Your task to perform on an android device: open app "DoorDash - Dasher" (install if not already installed) and go to login screen Image 0: 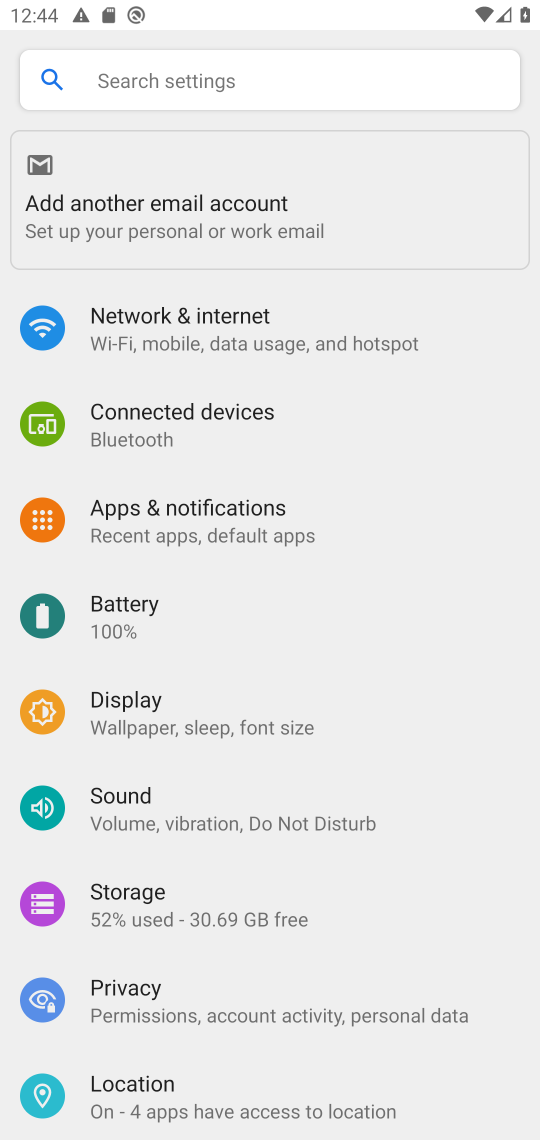
Step 0: press home button
Your task to perform on an android device: open app "DoorDash - Dasher" (install if not already installed) and go to login screen Image 1: 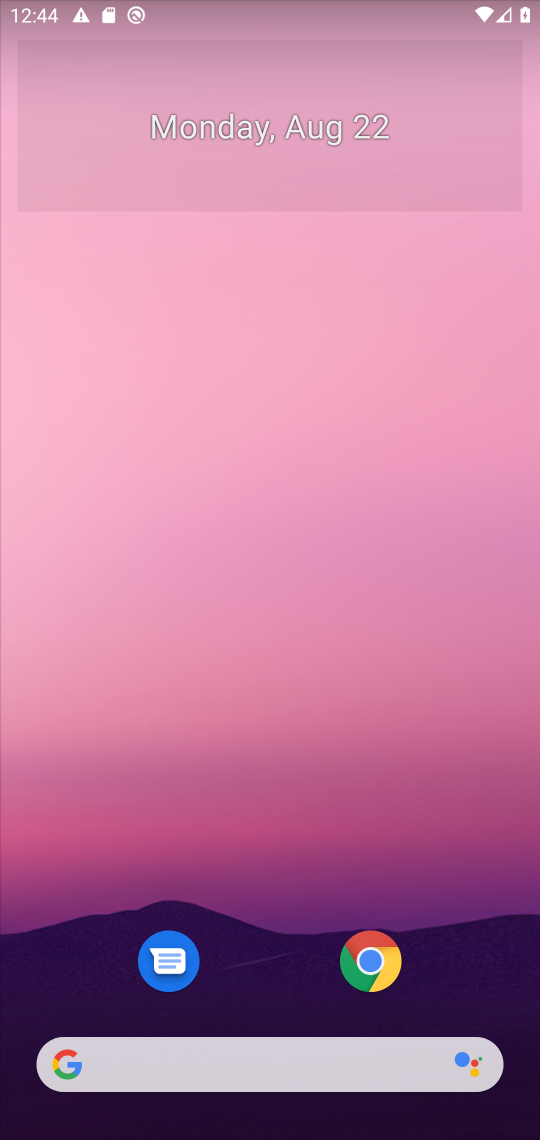
Step 1: drag from (477, 917) to (457, 104)
Your task to perform on an android device: open app "DoorDash - Dasher" (install if not already installed) and go to login screen Image 2: 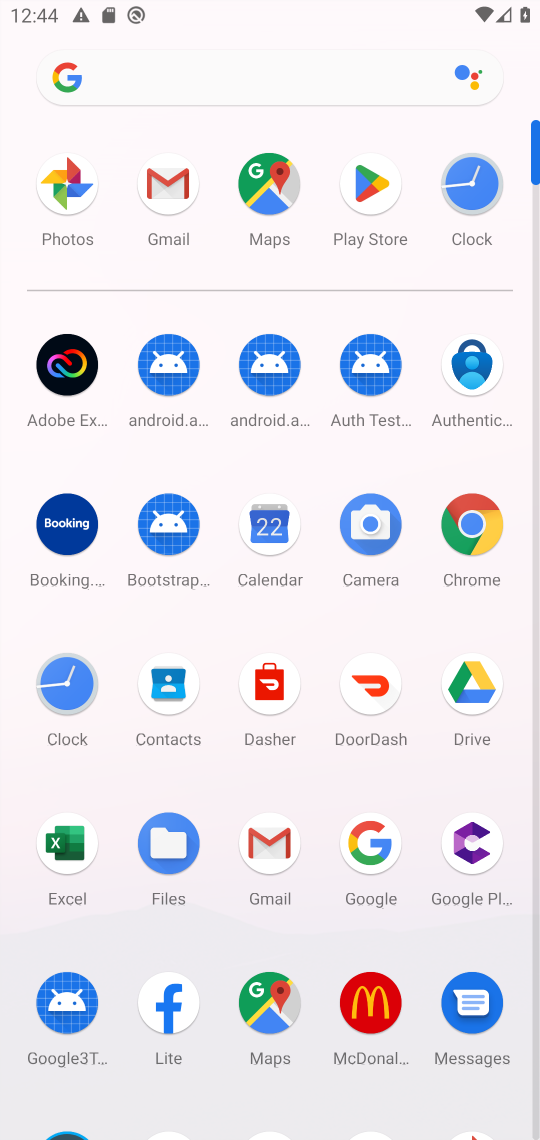
Step 2: click (370, 186)
Your task to perform on an android device: open app "DoorDash - Dasher" (install if not already installed) and go to login screen Image 3: 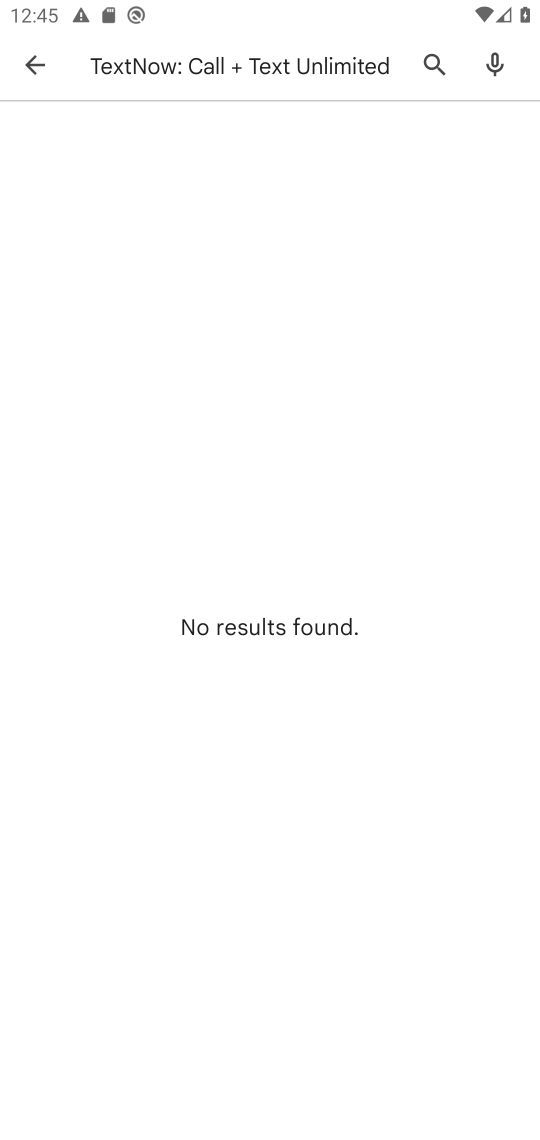
Step 3: press back button
Your task to perform on an android device: open app "DoorDash - Dasher" (install if not already installed) and go to login screen Image 4: 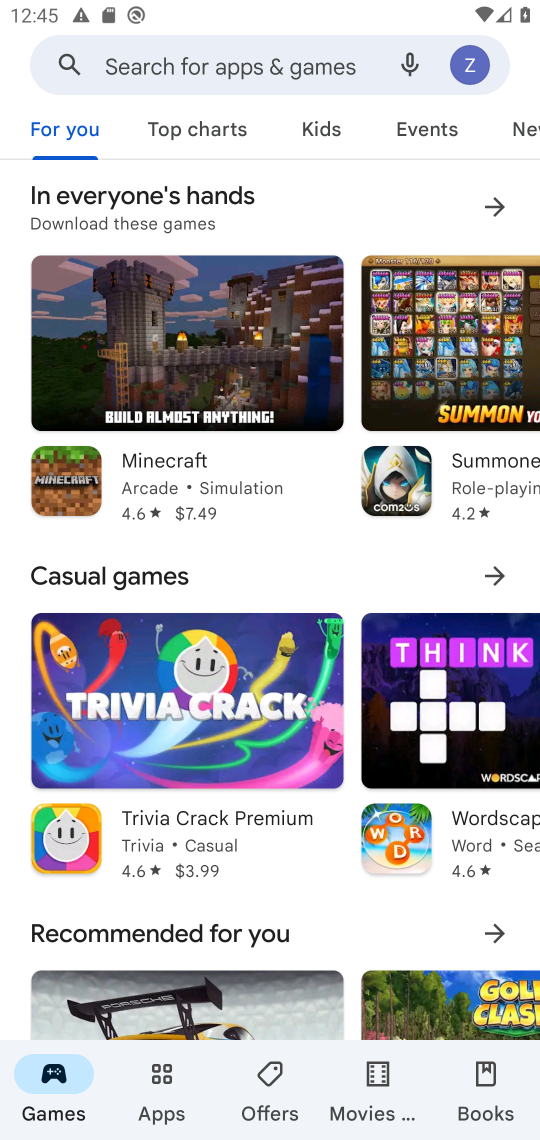
Step 4: click (254, 70)
Your task to perform on an android device: open app "DoorDash - Dasher" (install if not already installed) and go to login screen Image 5: 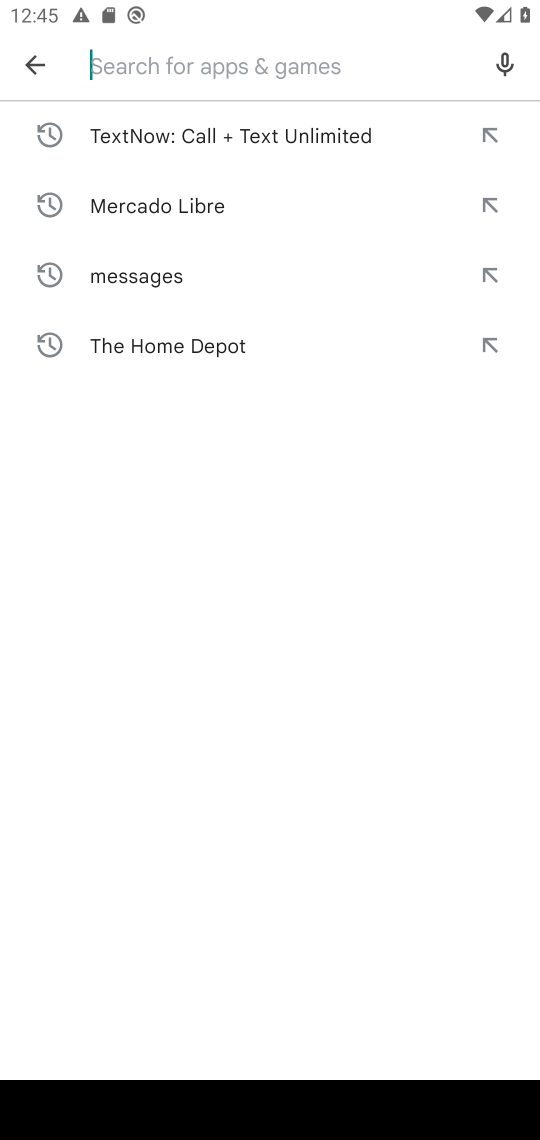
Step 5: type "DoorDash - Dasher"
Your task to perform on an android device: open app "DoorDash - Dasher" (install if not already installed) and go to login screen Image 6: 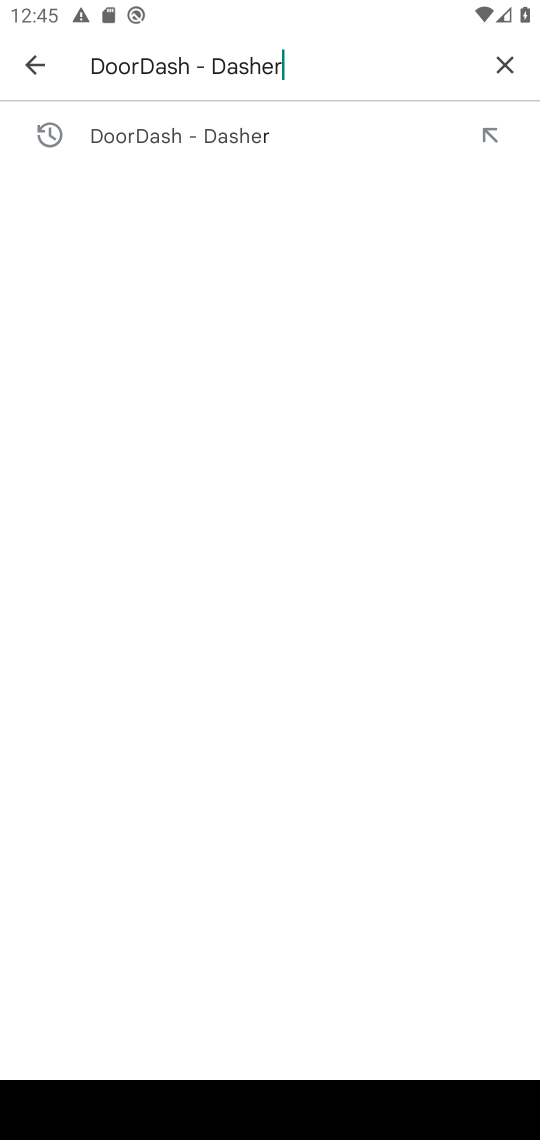
Step 6: press enter
Your task to perform on an android device: open app "DoorDash - Dasher" (install if not already installed) and go to login screen Image 7: 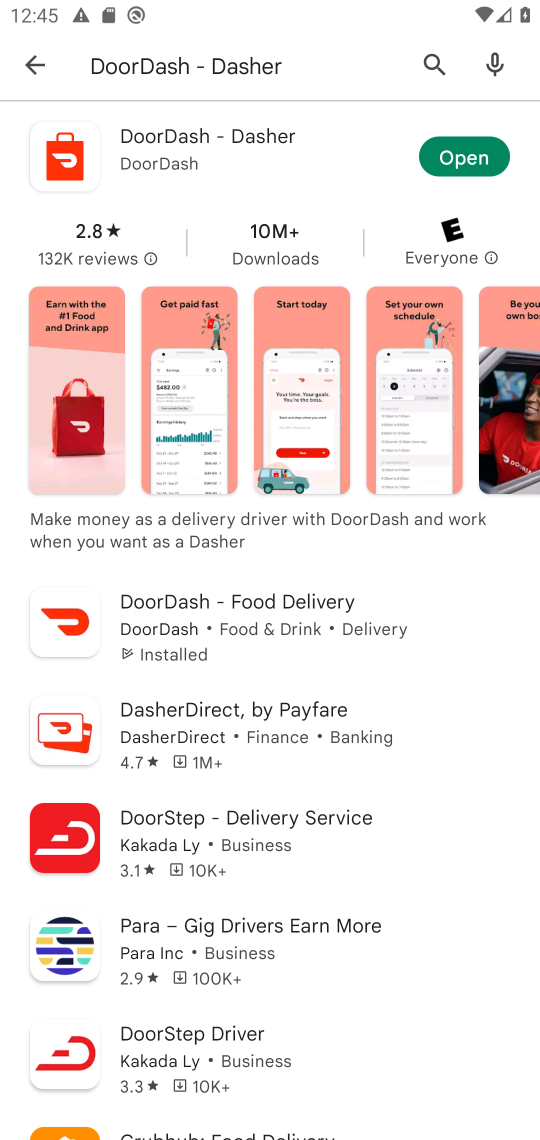
Step 7: click (476, 153)
Your task to perform on an android device: open app "DoorDash - Dasher" (install if not already installed) and go to login screen Image 8: 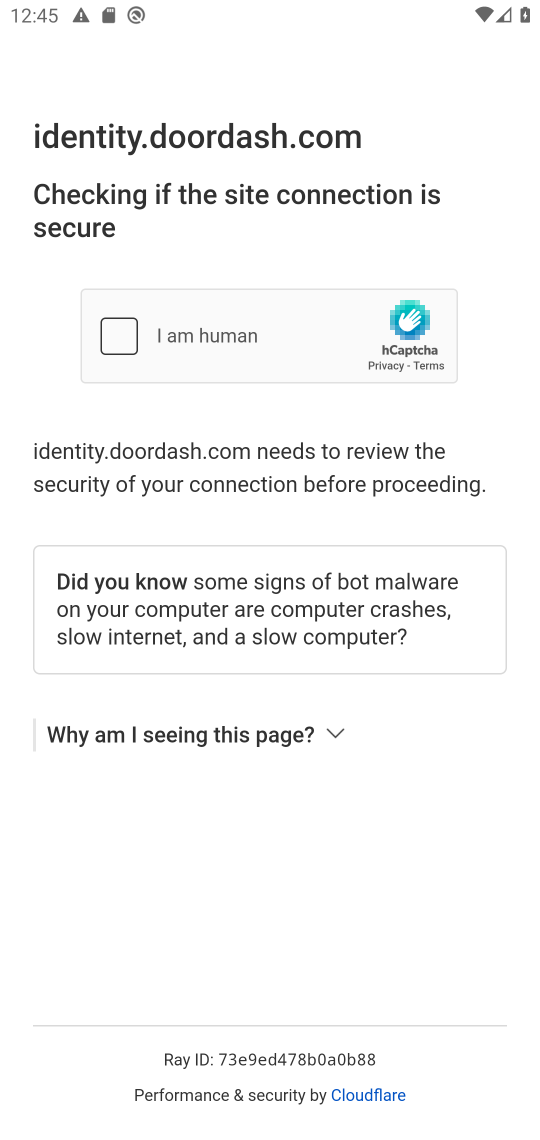
Step 8: click (121, 321)
Your task to perform on an android device: open app "DoorDash - Dasher" (install if not already installed) and go to login screen Image 9: 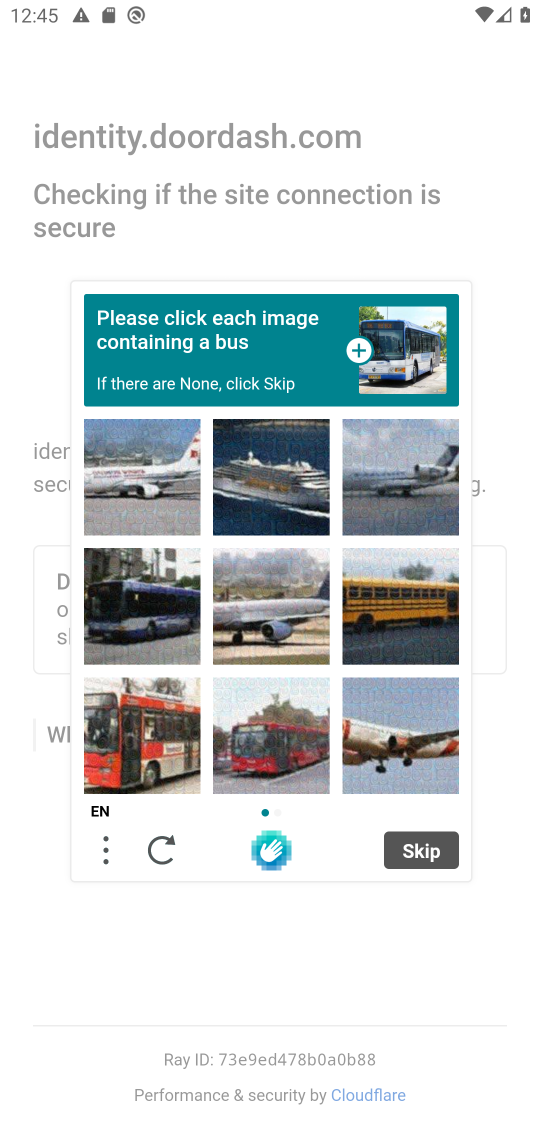
Step 9: click (153, 606)
Your task to perform on an android device: open app "DoorDash - Dasher" (install if not already installed) and go to login screen Image 10: 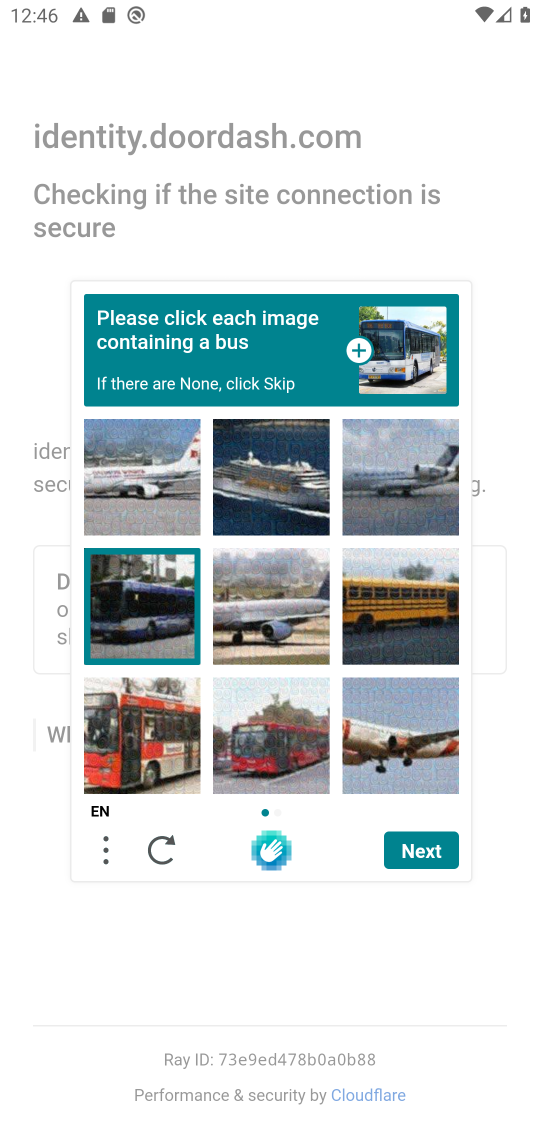
Step 10: click (145, 755)
Your task to perform on an android device: open app "DoorDash - Dasher" (install if not already installed) and go to login screen Image 11: 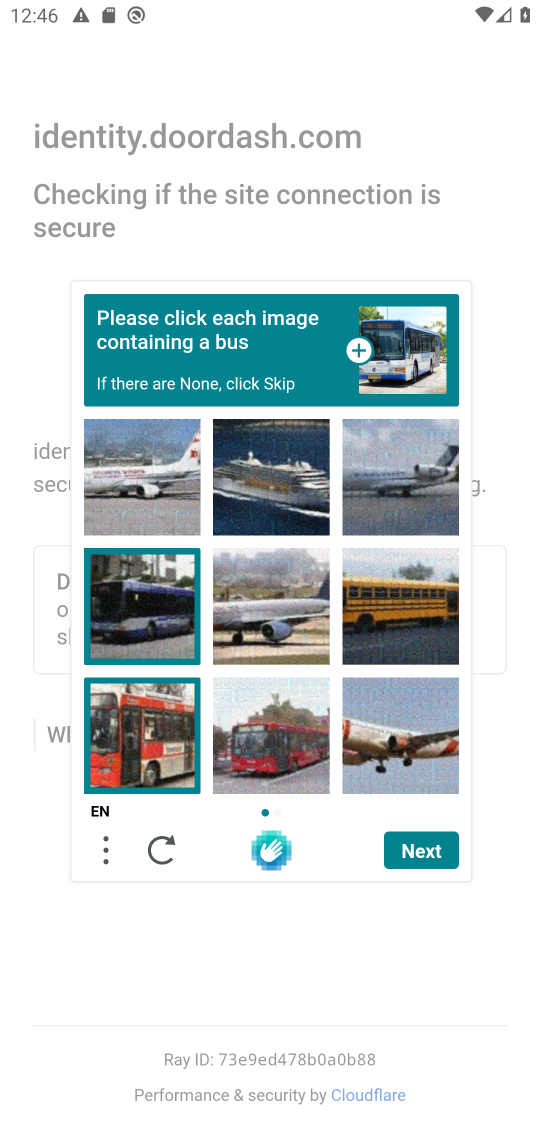
Step 11: click (279, 733)
Your task to perform on an android device: open app "DoorDash - Dasher" (install if not already installed) and go to login screen Image 12: 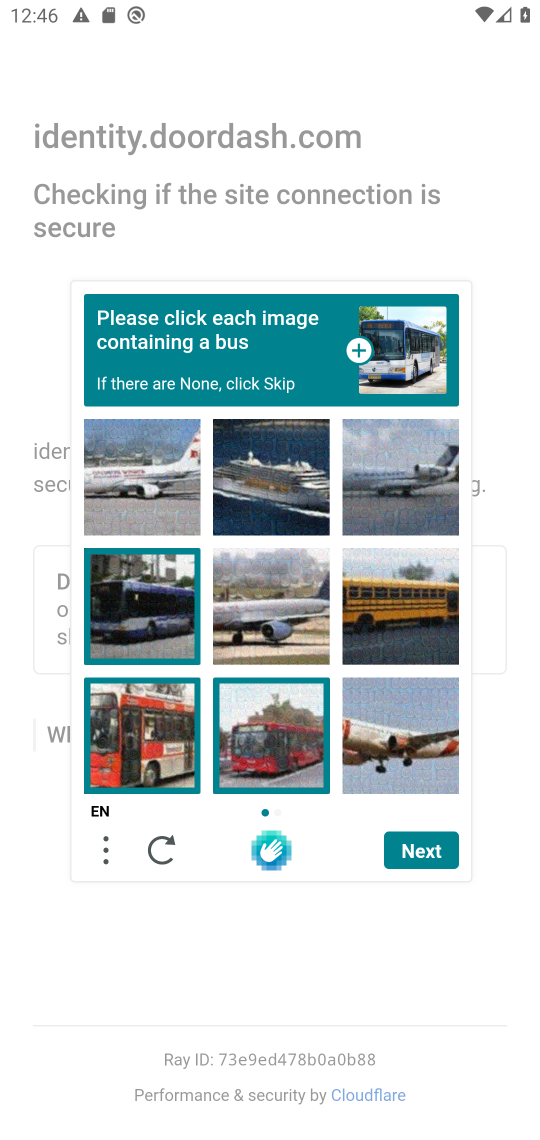
Step 12: click (394, 600)
Your task to perform on an android device: open app "DoorDash - Dasher" (install if not already installed) and go to login screen Image 13: 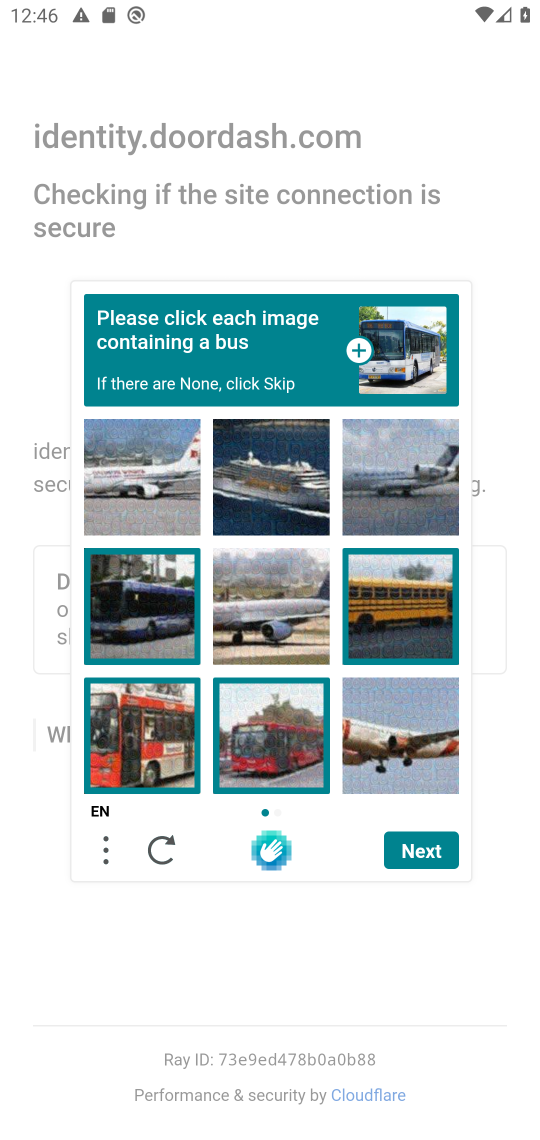
Step 13: click (257, 834)
Your task to perform on an android device: open app "DoorDash - Dasher" (install if not already installed) and go to login screen Image 14: 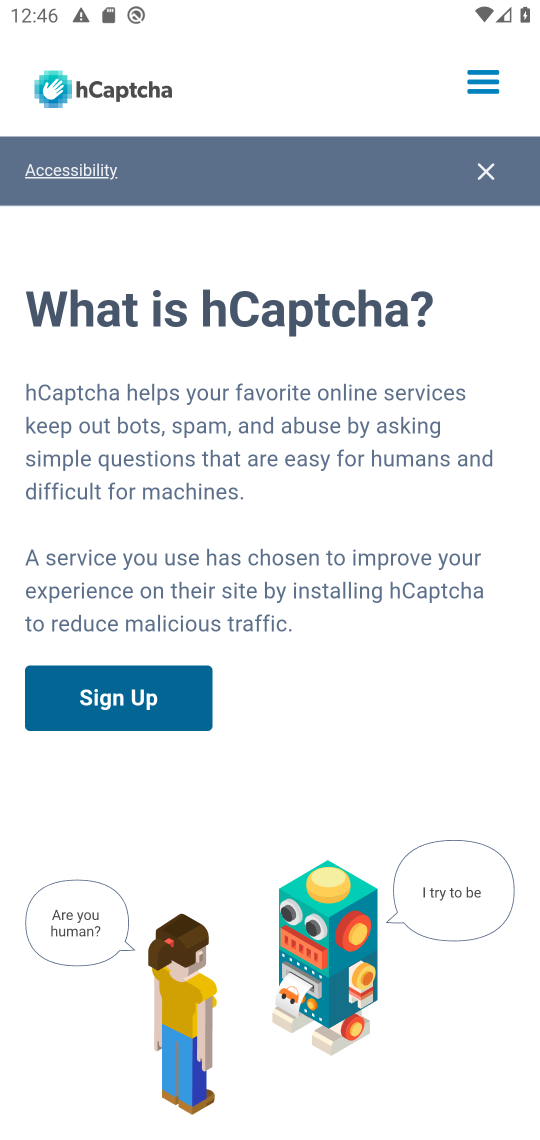
Step 14: task complete